Your task to perform on an android device: Open the stopwatch Image 0: 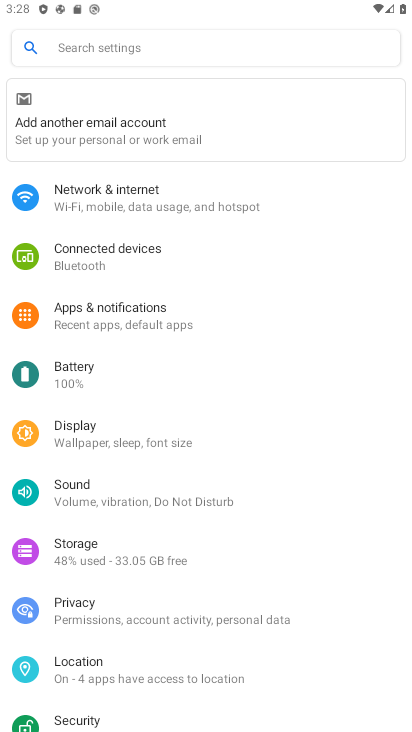
Step 0: press home button
Your task to perform on an android device: Open the stopwatch Image 1: 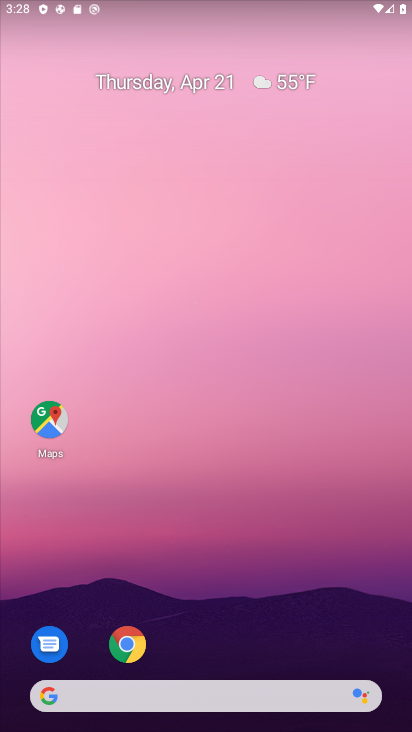
Step 1: drag from (218, 669) to (219, 57)
Your task to perform on an android device: Open the stopwatch Image 2: 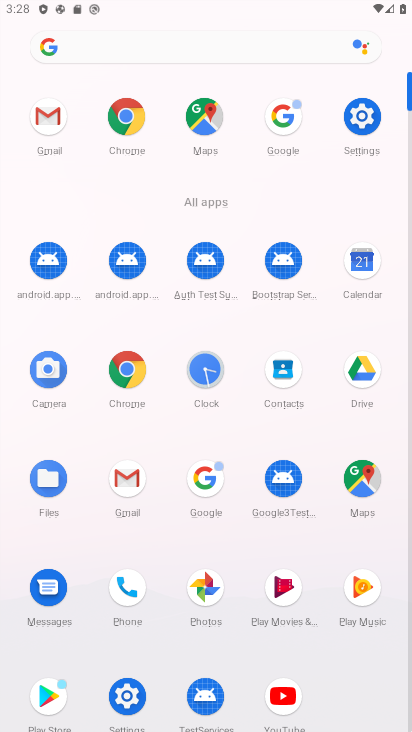
Step 2: click (202, 369)
Your task to perform on an android device: Open the stopwatch Image 3: 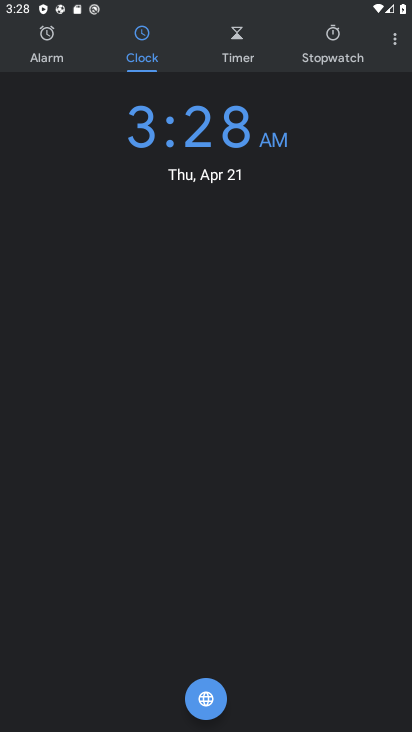
Step 3: click (331, 46)
Your task to perform on an android device: Open the stopwatch Image 4: 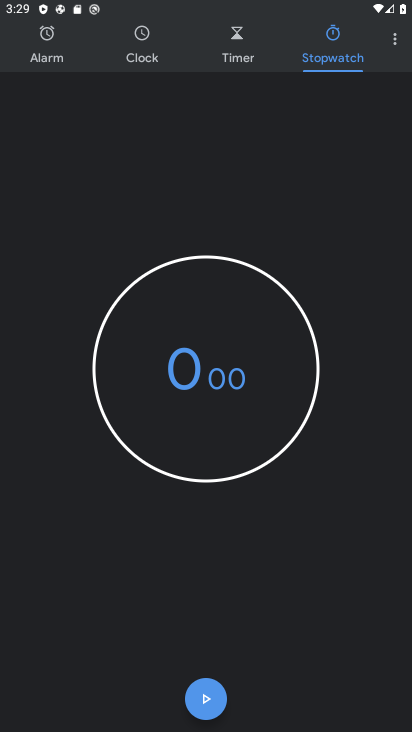
Step 4: task complete